Your task to perform on an android device: Show me popular videos on Youtube Image 0: 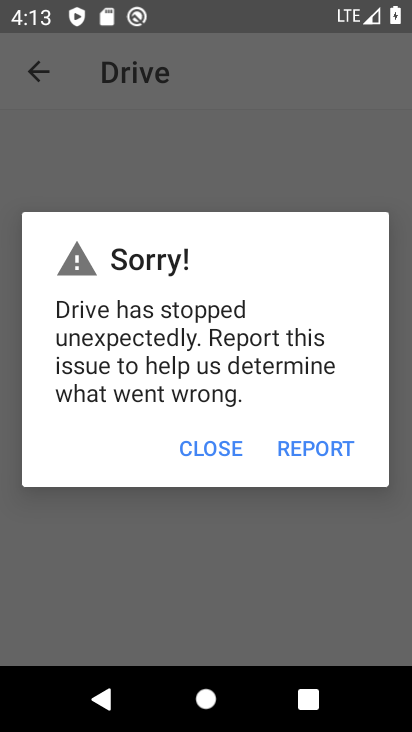
Step 0: press home button
Your task to perform on an android device: Show me popular videos on Youtube Image 1: 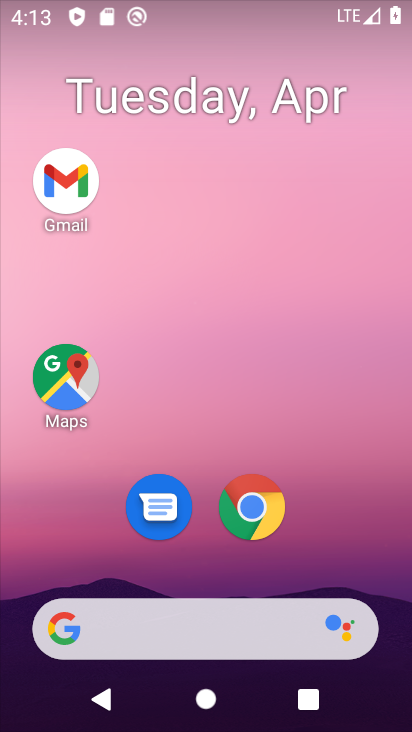
Step 1: drag from (230, 576) to (229, 161)
Your task to perform on an android device: Show me popular videos on Youtube Image 2: 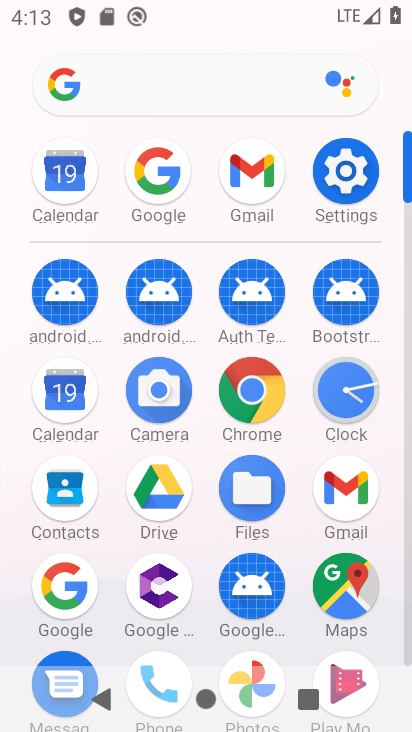
Step 2: drag from (170, 617) to (247, 220)
Your task to perform on an android device: Show me popular videos on Youtube Image 3: 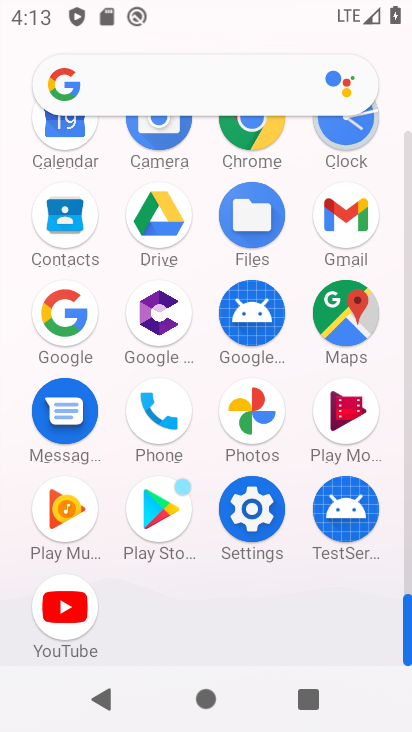
Step 3: click (79, 617)
Your task to perform on an android device: Show me popular videos on Youtube Image 4: 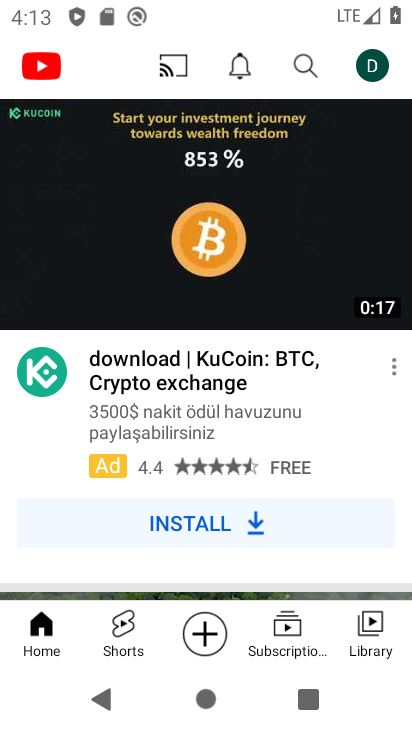
Step 4: task complete